Your task to perform on an android device: turn off airplane mode Image 0: 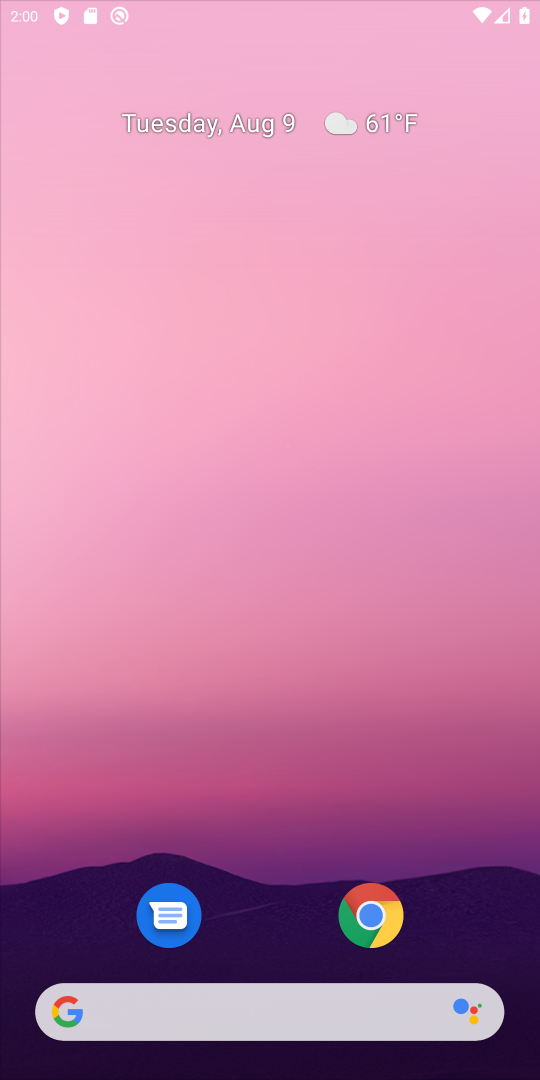
Step 0: press back button
Your task to perform on an android device: turn off airplane mode Image 1: 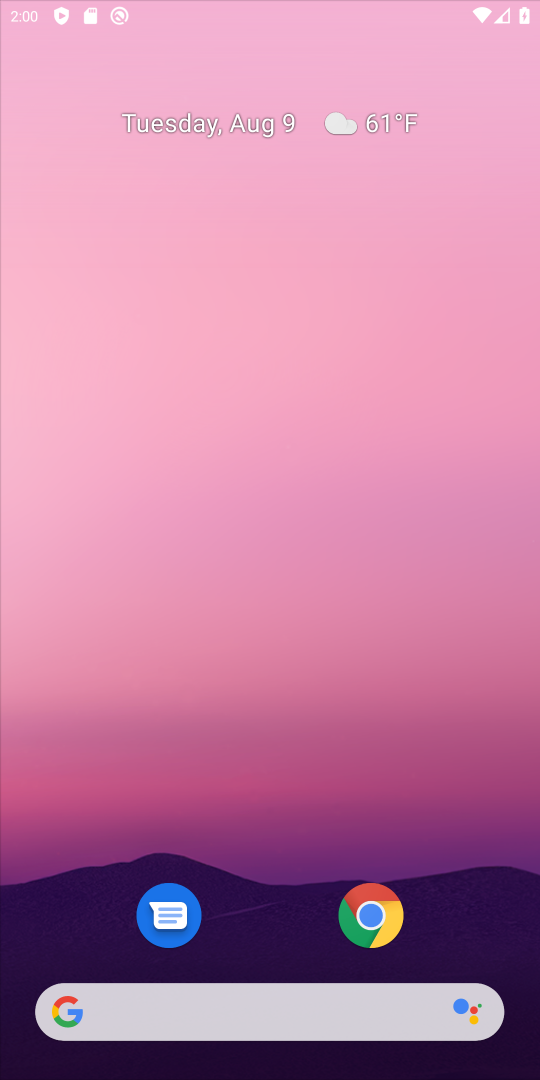
Step 1: press home button
Your task to perform on an android device: turn off airplane mode Image 2: 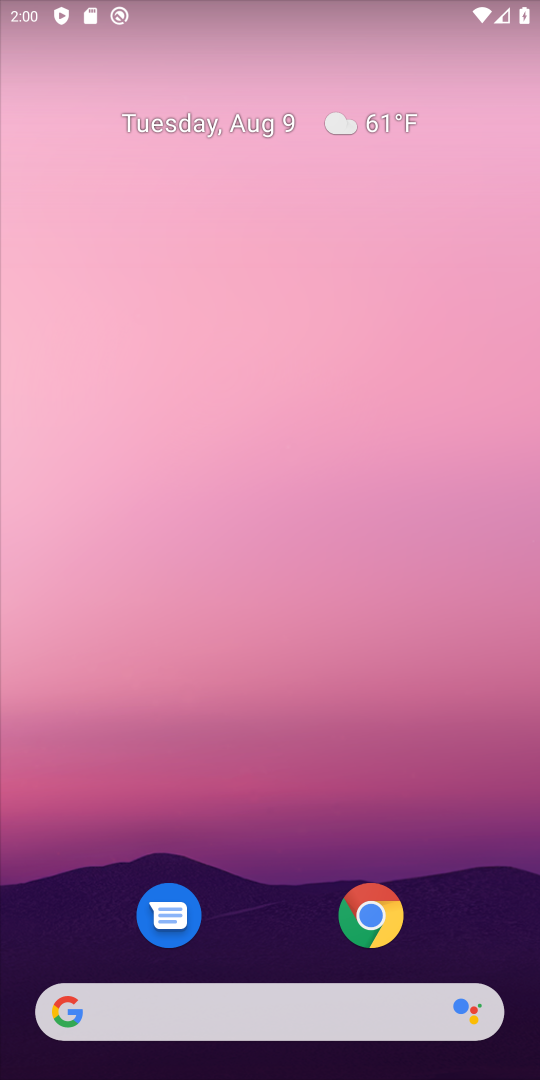
Step 2: click (293, 308)
Your task to perform on an android device: turn off airplane mode Image 3: 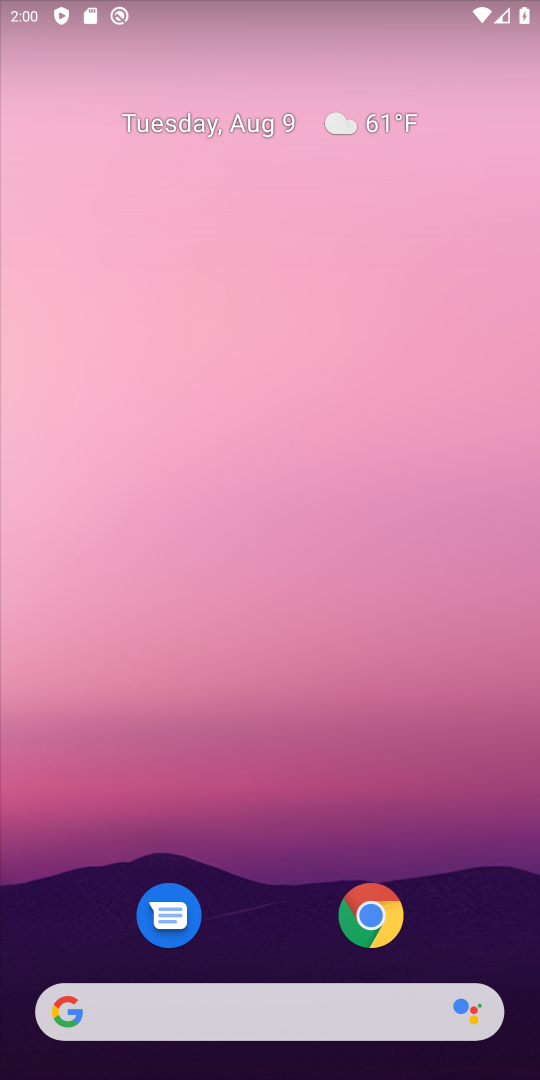
Step 3: press back button
Your task to perform on an android device: turn off airplane mode Image 4: 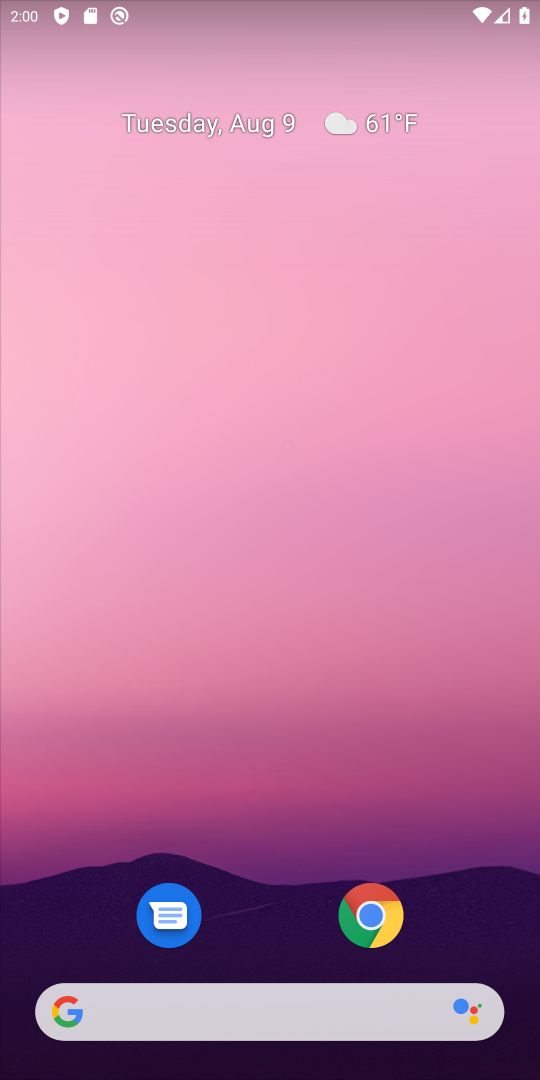
Step 4: click (292, 492)
Your task to perform on an android device: turn off airplane mode Image 5: 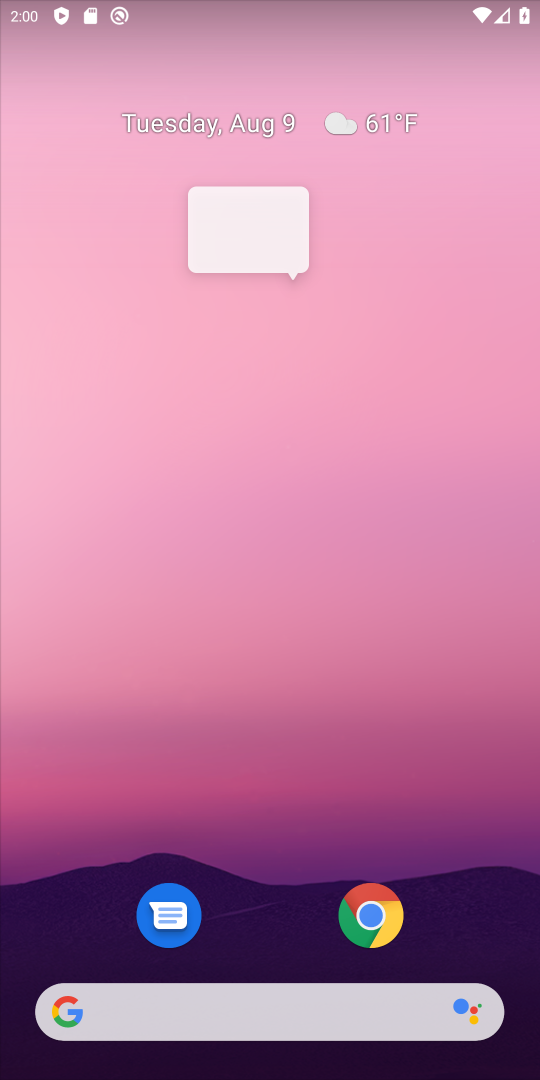
Step 5: drag from (336, 854) to (260, 330)
Your task to perform on an android device: turn off airplane mode Image 6: 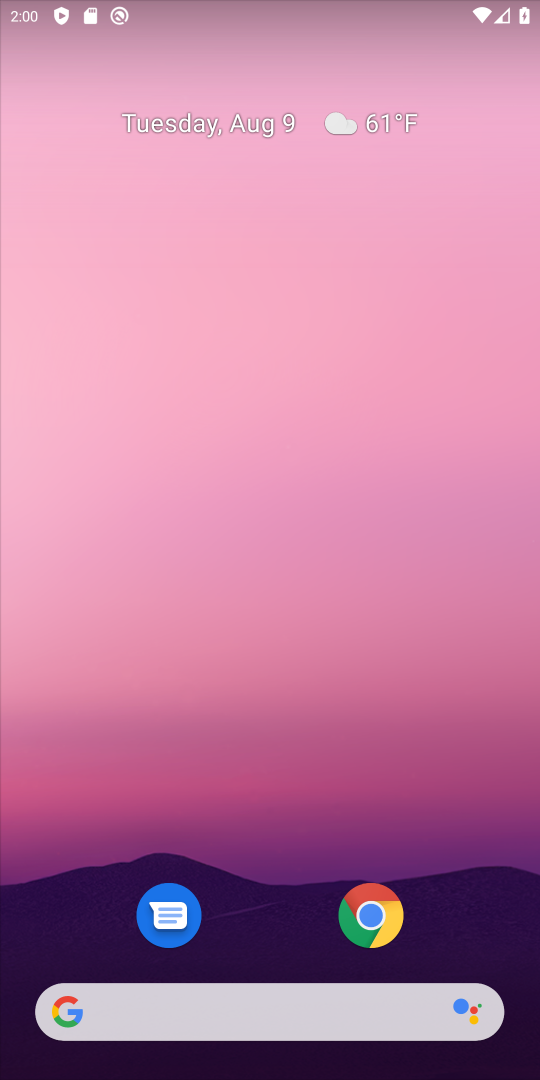
Step 6: click (252, 537)
Your task to perform on an android device: turn off airplane mode Image 7: 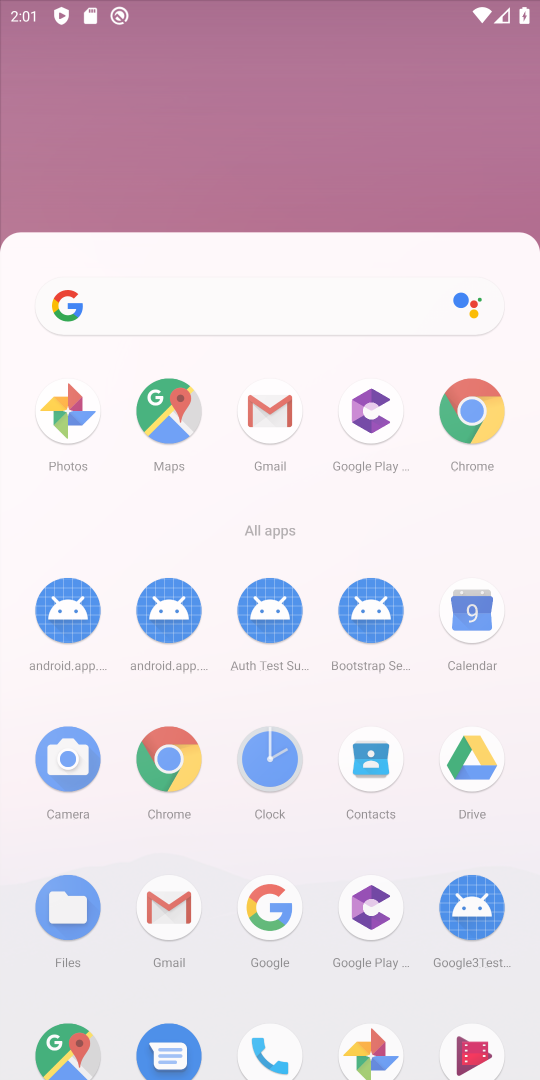
Step 7: drag from (245, 456) to (247, 202)
Your task to perform on an android device: turn off airplane mode Image 8: 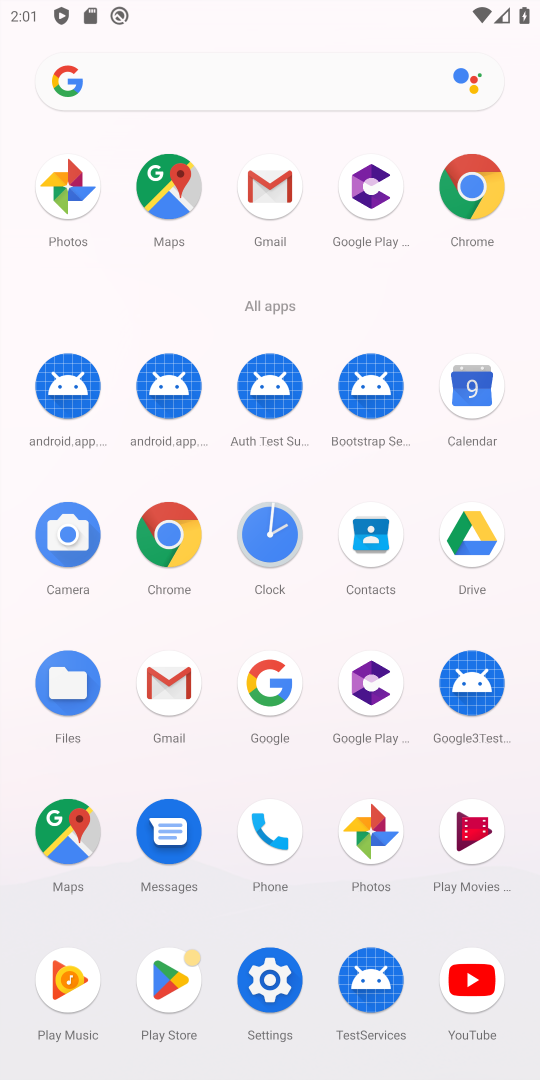
Step 8: click (268, 971)
Your task to perform on an android device: turn off airplane mode Image 9: 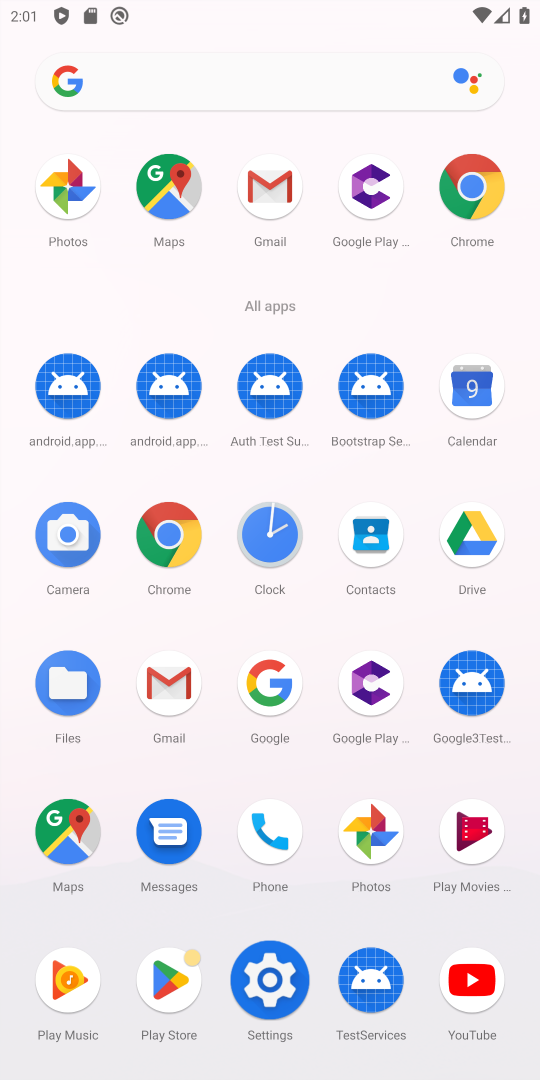
Step 9: click (265, 973)
Your task to perform on an android device: turn off airplane mode Image 10: 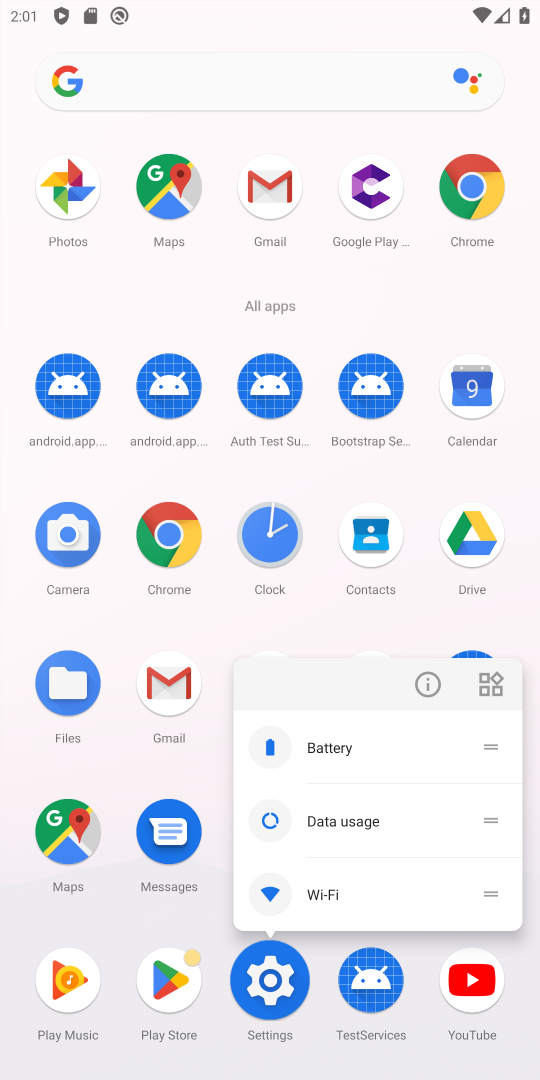
Step 10: click (267, 978)
Your task to perform on an android device: turn off airplane mode Image 11: 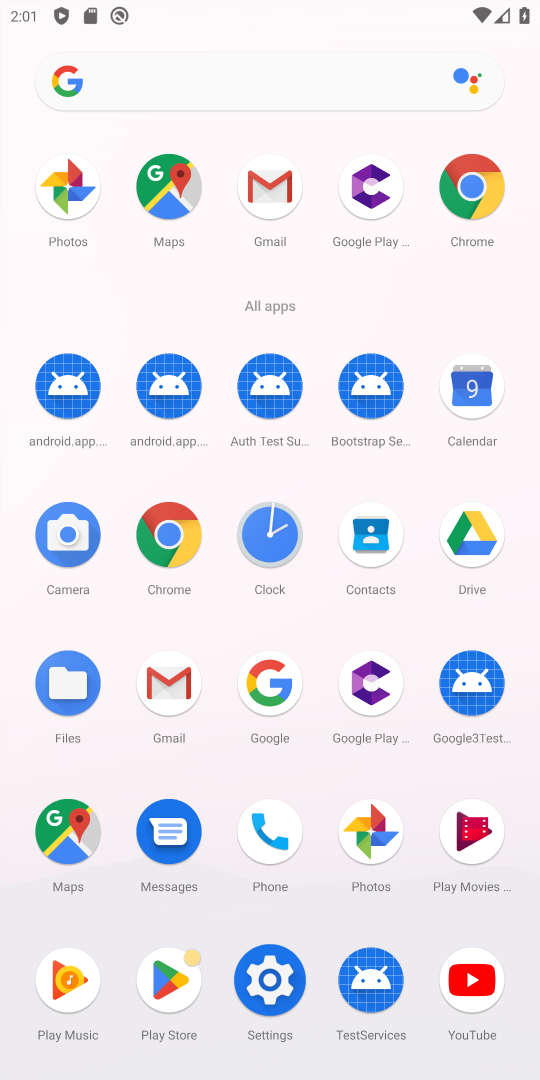
Step 11: click (267, 978)
Your task to perform on an android device: turn off airplane mode Image 12: 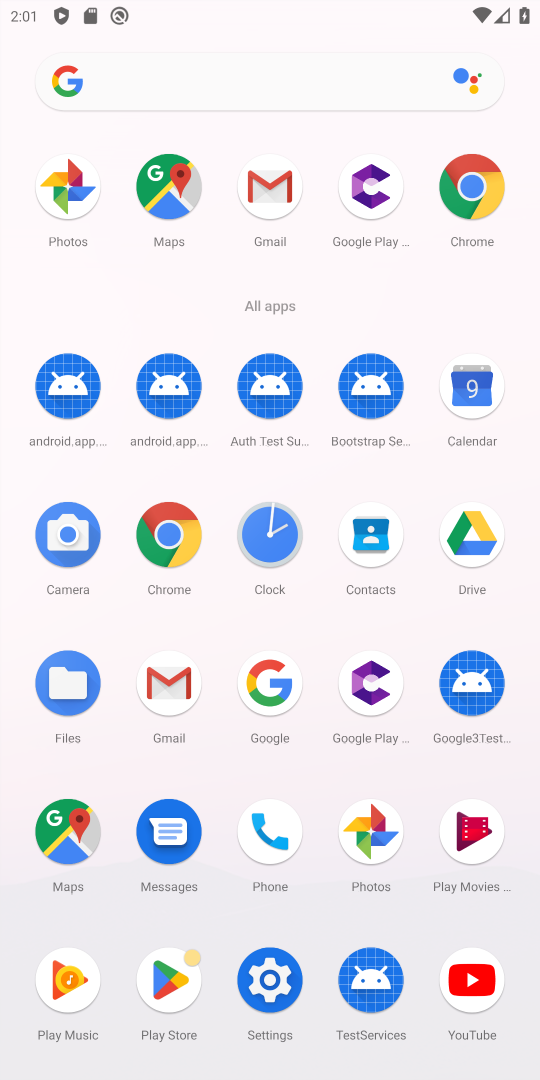
Step 12: click (278, 1005)
Your task to perform on an android device: turn off airplane mode Image 13: 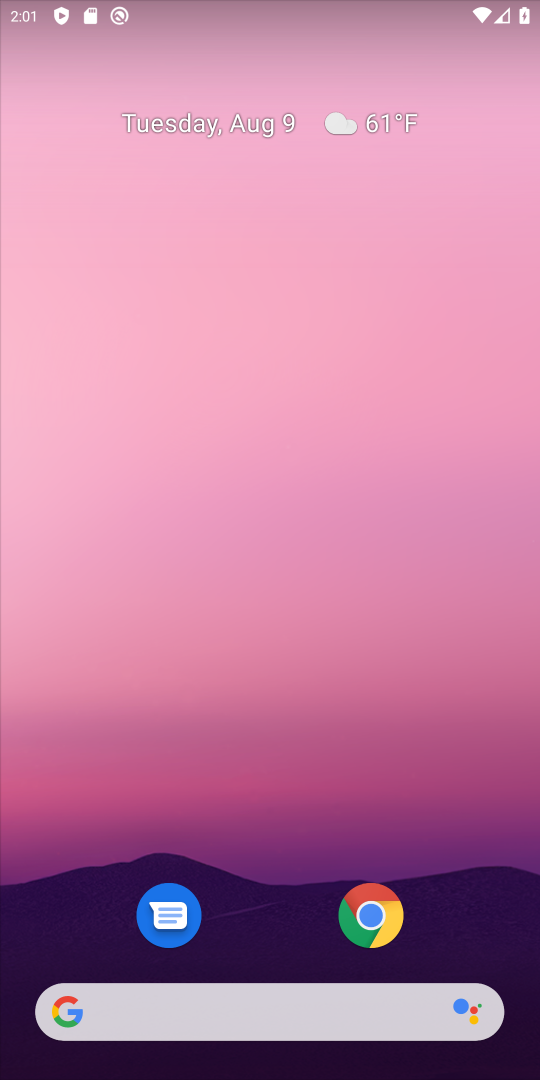
Step 13: click (253, 1002)
Your task to perform on an android device: turn off airplane mode Image 14: 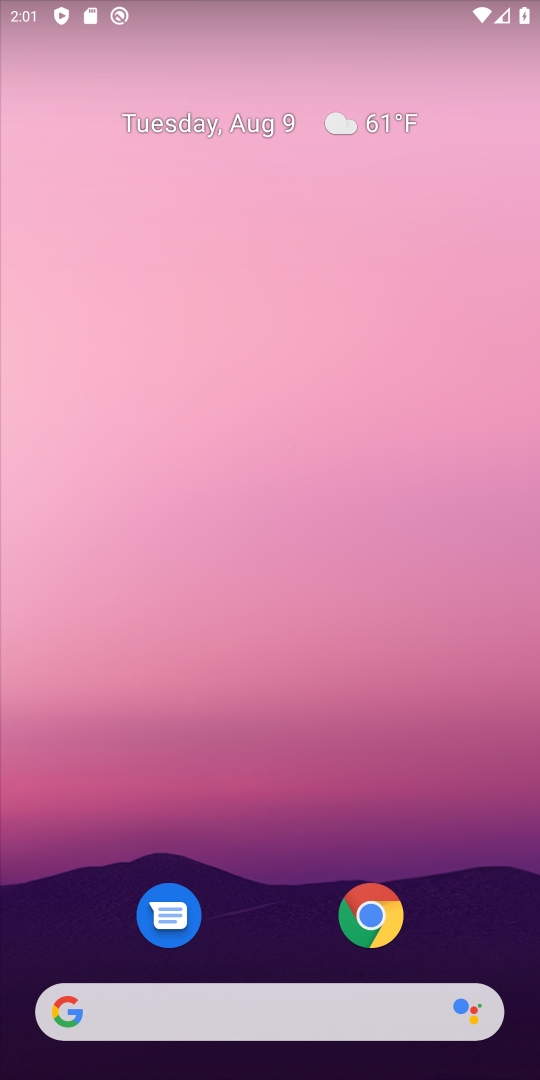
Step 14: drag from (226, 490) to (203, 303)
Your task to perform on an android device: turn off airplane mode Image 15: 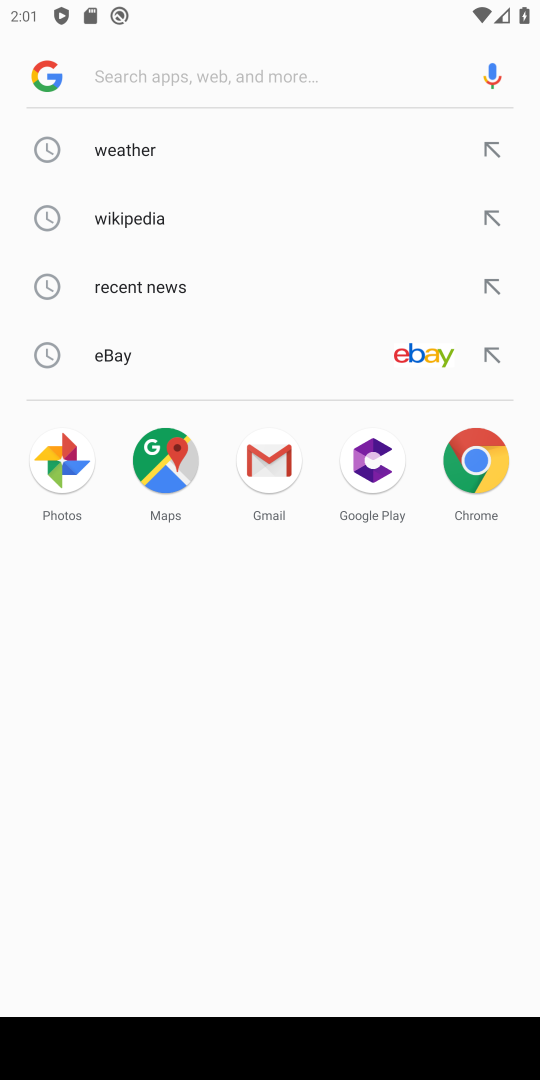
Step 15: press back button
Your task to perform on an android device: turn off airplane mode Image 16: 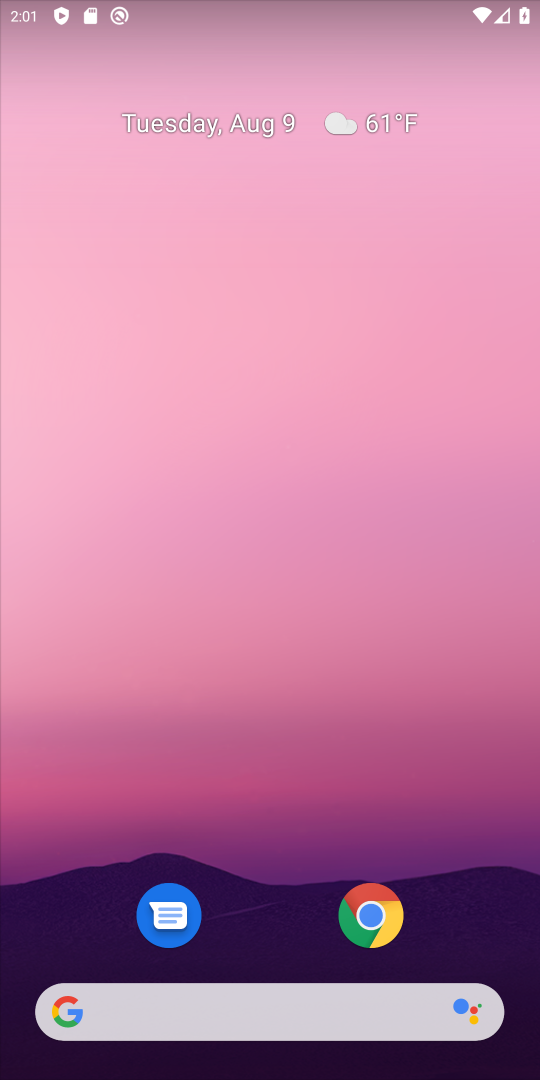
Step 16: drag from (297, 912) to (160, 337)
Your task to perform on an android device: turn off airplane mode Image 17: 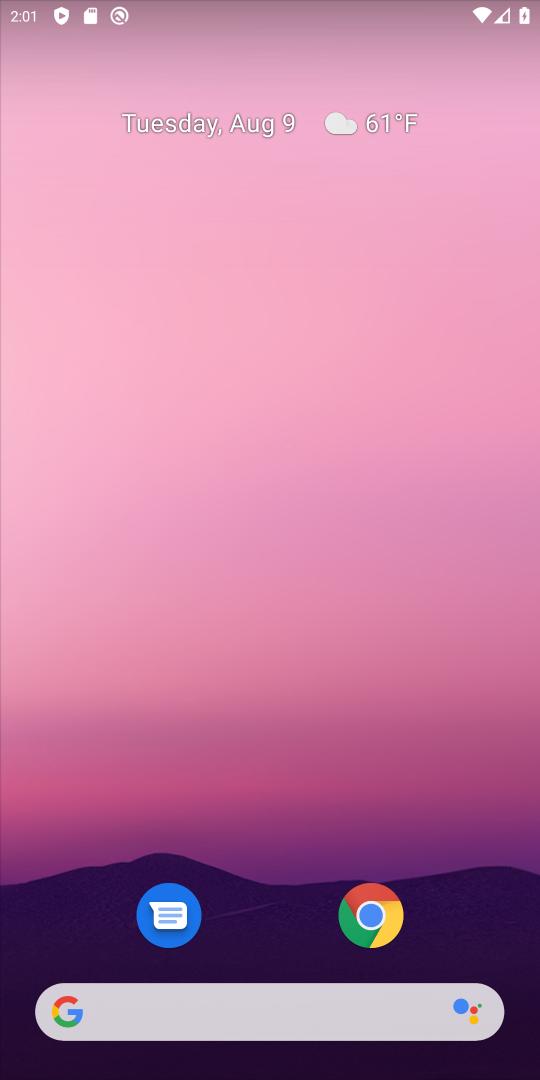
Step 17: drag from (331, 723) to (276, 319)
Your task to perform on an android device: turn off airplane mode Image 18: 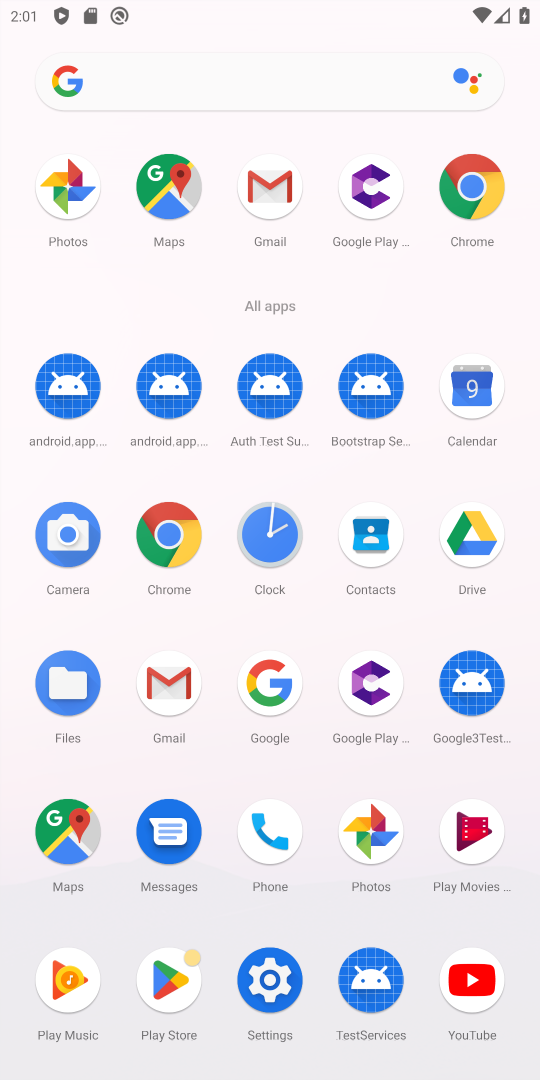
Step 18: drag from (377, 746) to (299, 310)
Your task to perform on an android device: turn off airplane mode Image 19: 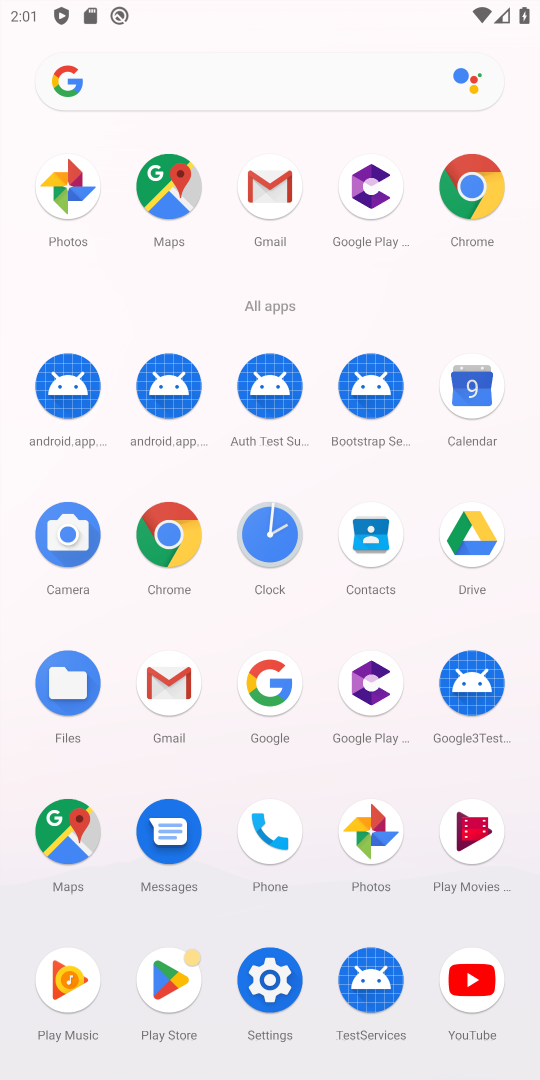
Step 19: click (268, 981)
Your task to perform on an android device: turn off airplane mode Image 20: 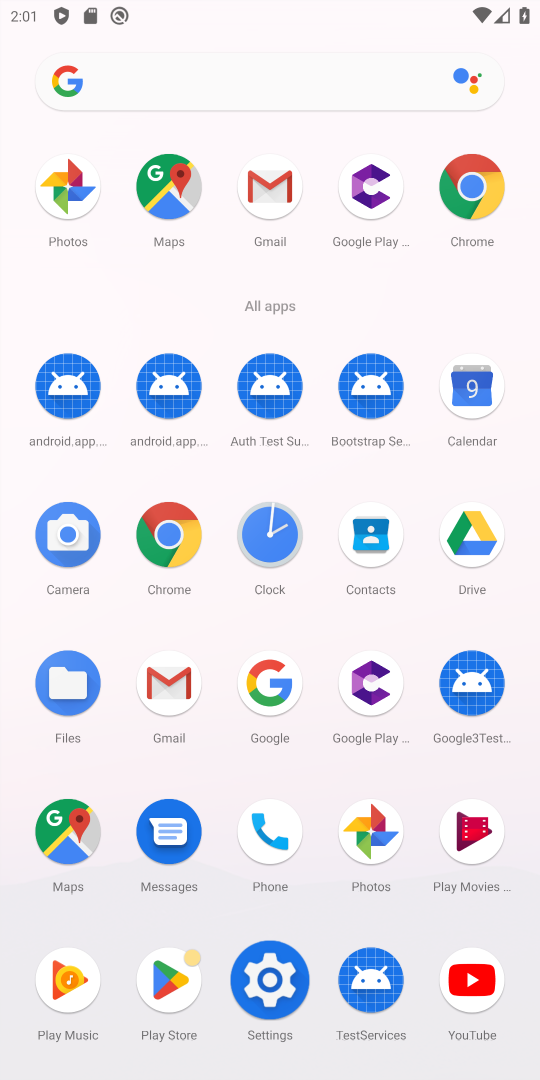
Step 20: click (267, 986)
Your task to perform on an android device: turn off airplane mode Image 21: 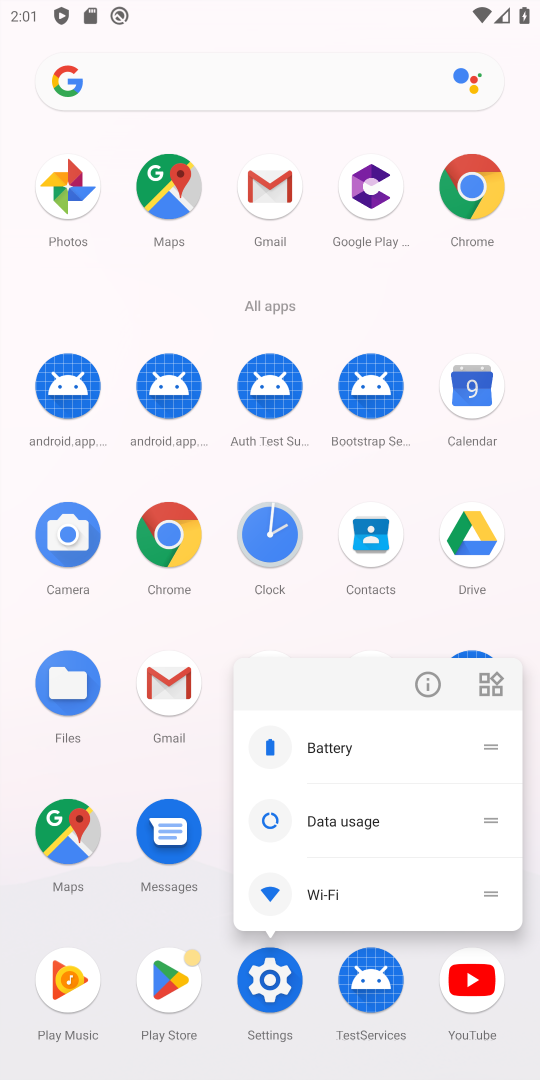
Step 21: click (280, 971)
Your task to perform on an android device: turn off airplane mode Image 22: 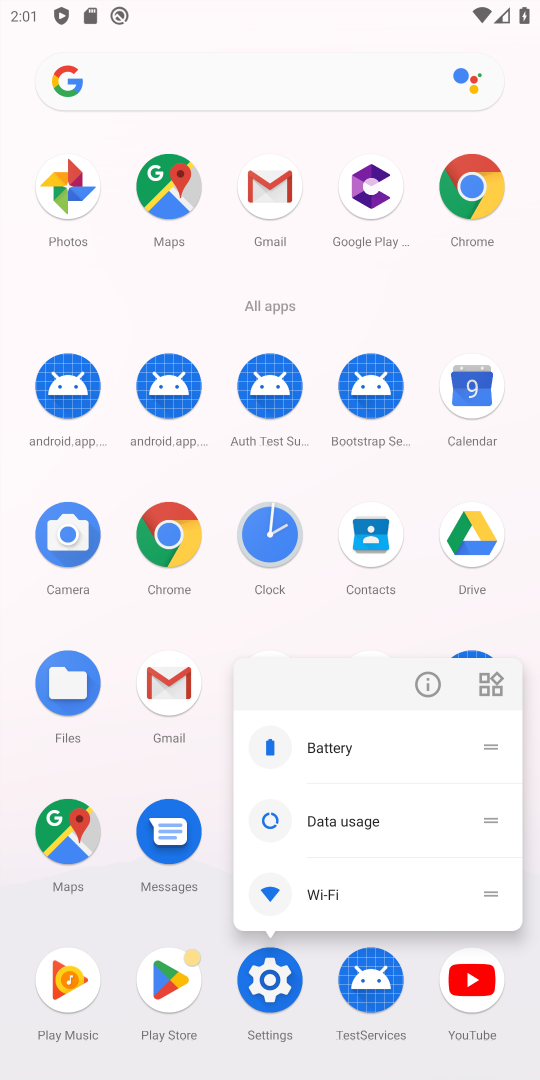
Step 22: click (270, 994)
Your task to perform on an android device: turn off airplane mode Image 23: 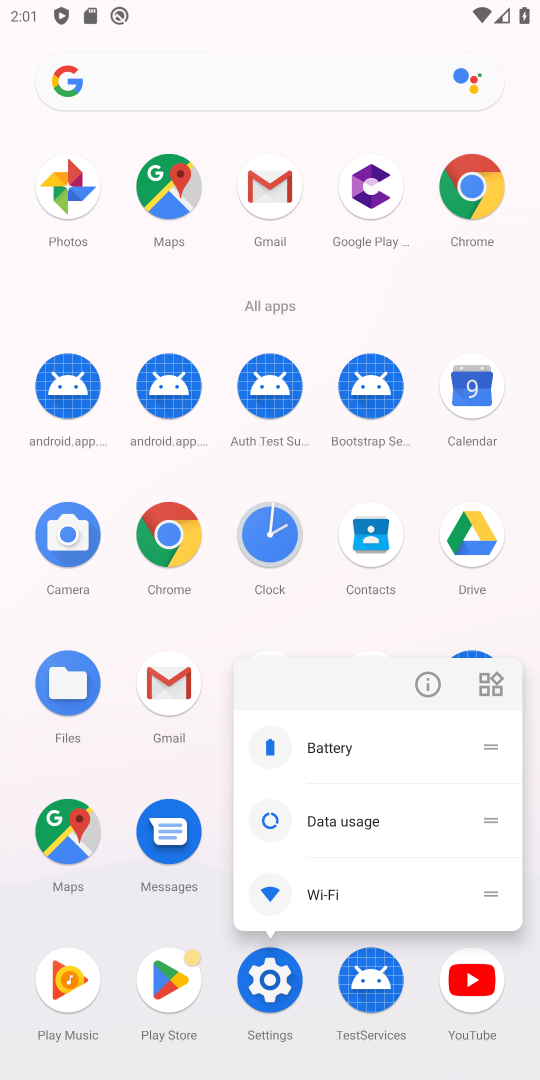
Step 23: click (270, 995)
Your task to perform on an android device: turn off airplane mode Image 24: 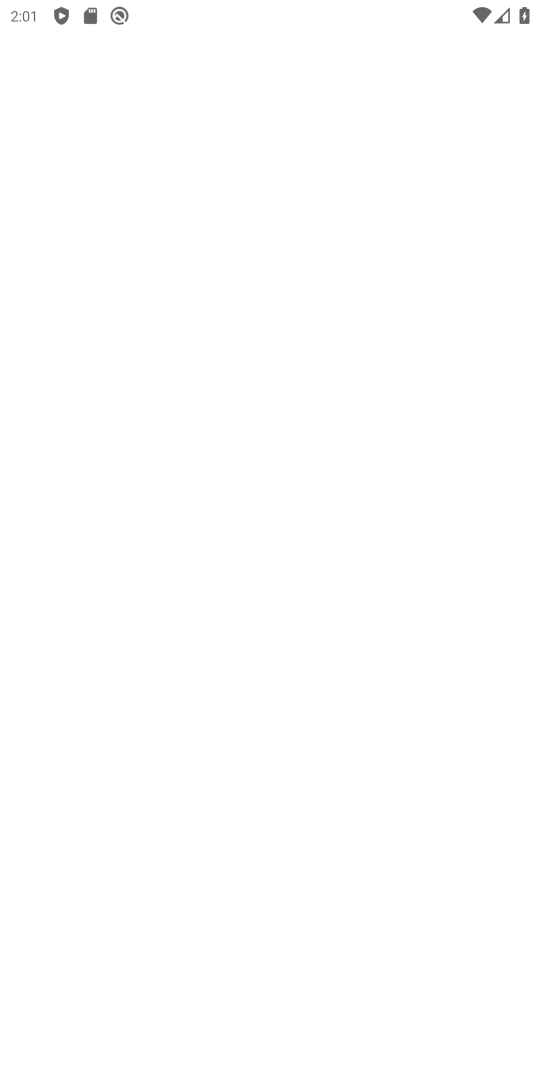
Step 24: click (271, 996)
Your task to perform on an android device: turn off airplane mode Image 25: 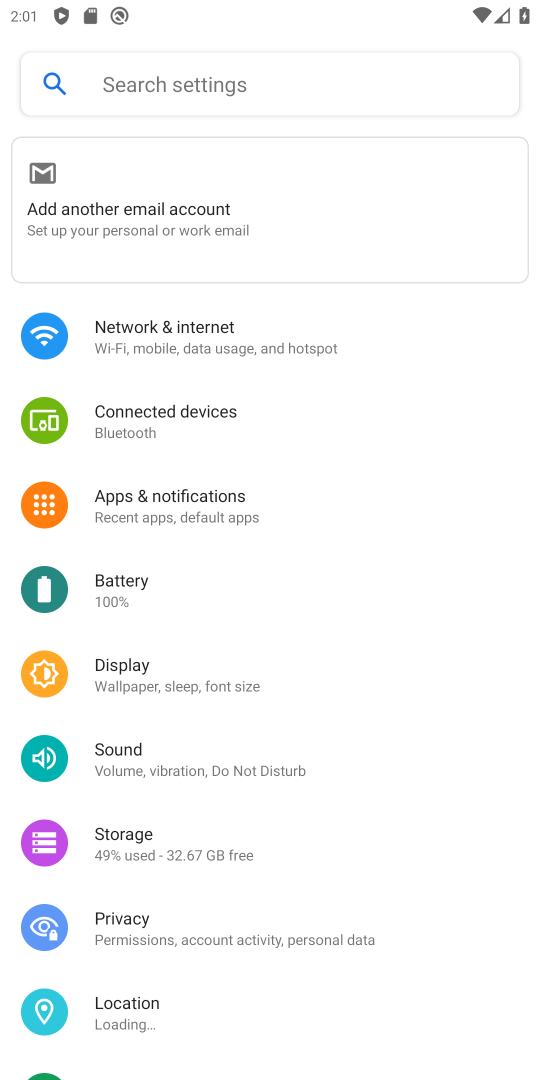
Step 25: click (145, 326)
Your task to perform on an android device: turn off airplane mode Image 26: 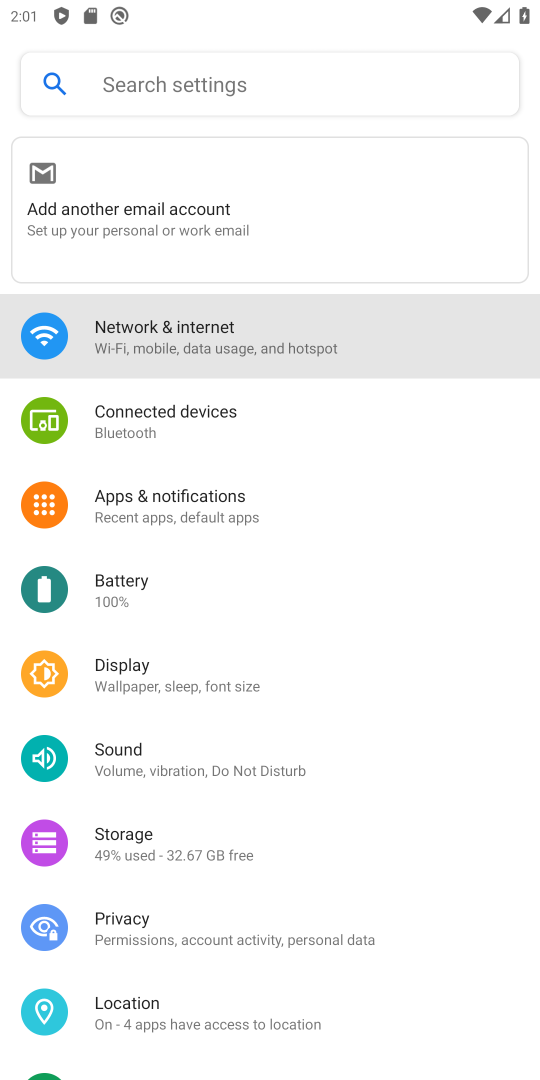
Step 26: click (145, 326)
Your task to perform on an android device: turn off airplane mode Image 27: 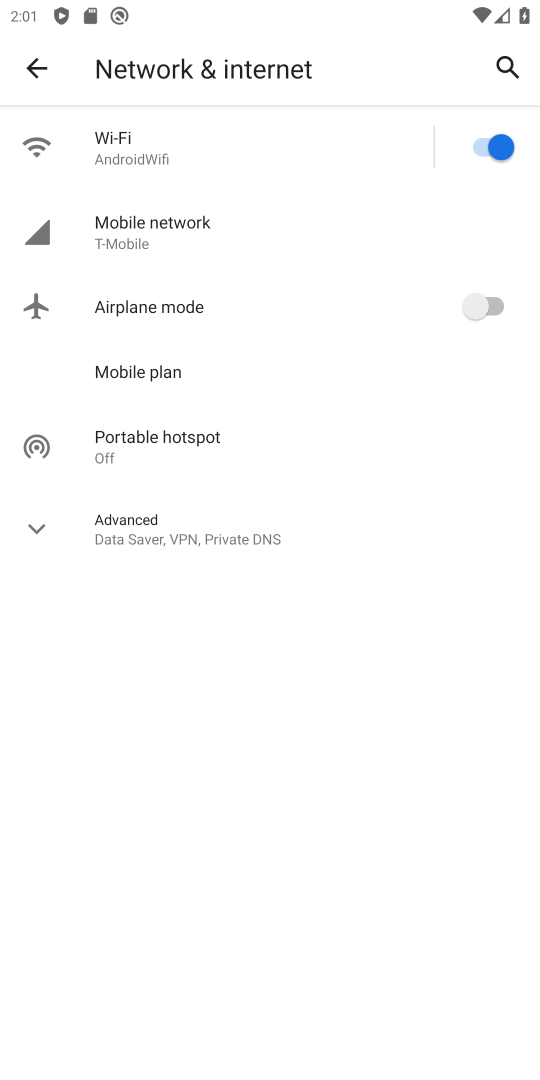
Step 27: click (494, 303)
Your task to perform on an android device: turn off airplane mode Image 28: 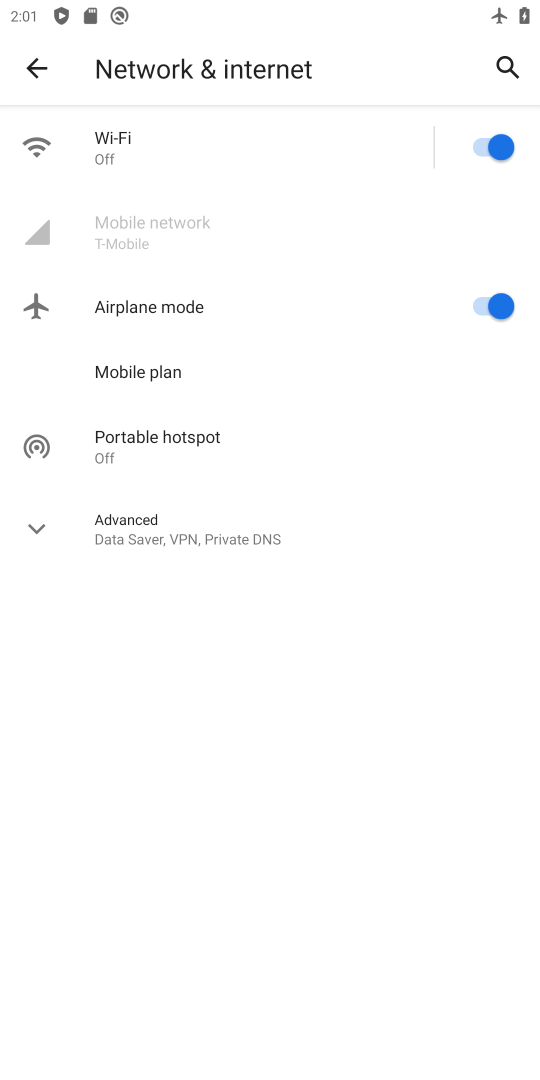
Step 28: click (494, 303)
Your task to perform on an android device: turn off airplane mode Image 29: 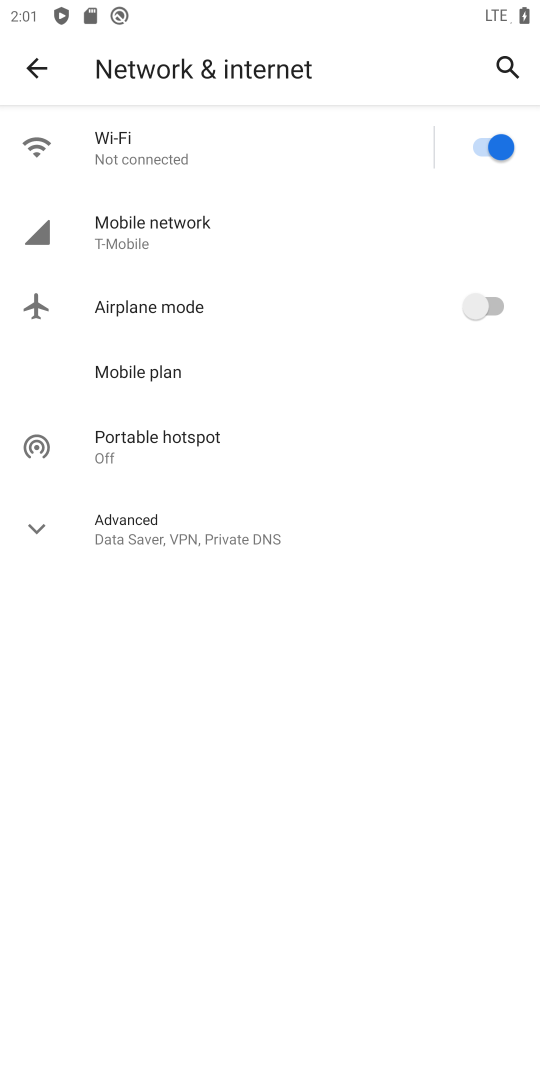
Step 29: click (479, 135)
Your task to perform on an android device: turn off airplane mode Image 30: 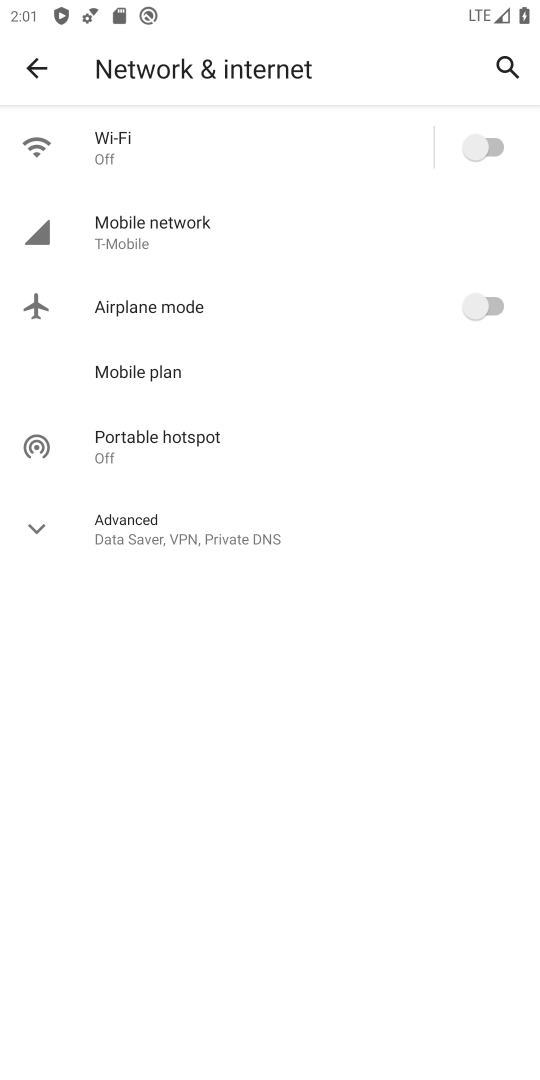
Step 30: click (468, 158)
Your task to perform on an android device: turn off airplane mode Image 31: 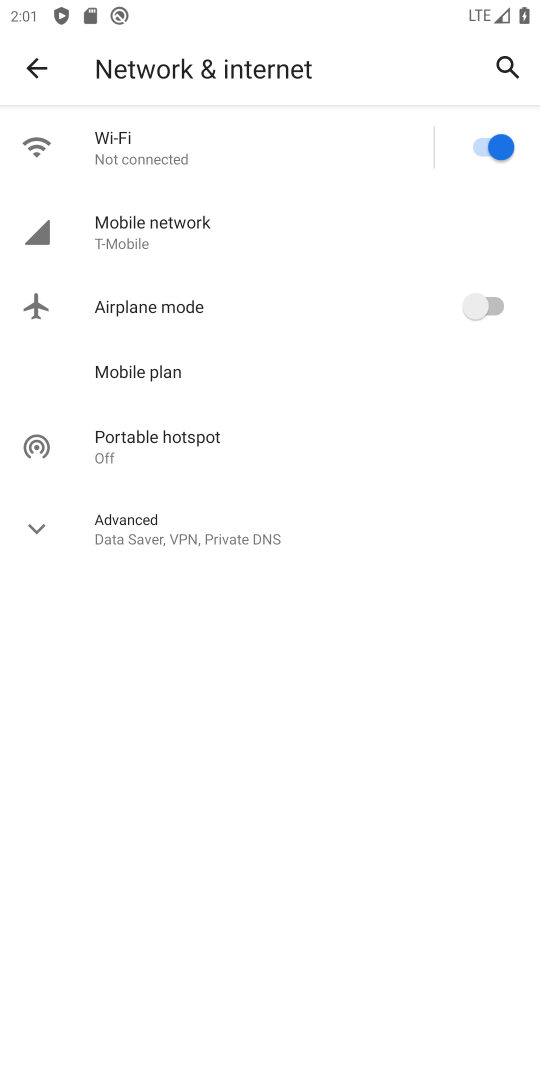
Step 31: task complete